Your task to perform on an android device: change notification settings in the gmail app Image 0: 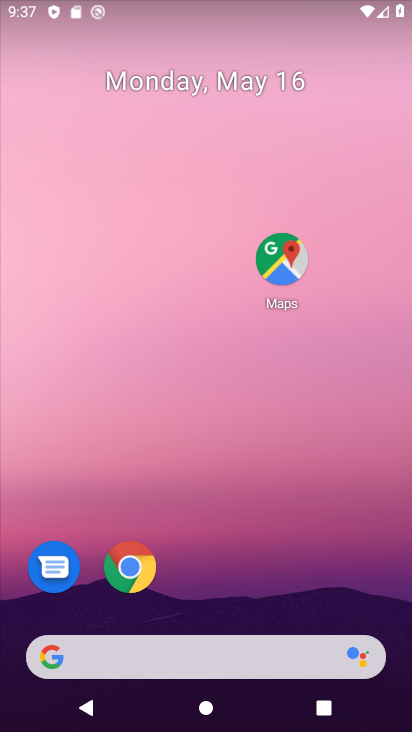
Step 0: drag from (333, 519) to (289, 58)
Your task to perform on an android device: change notification settings in the gmail app Image 1: 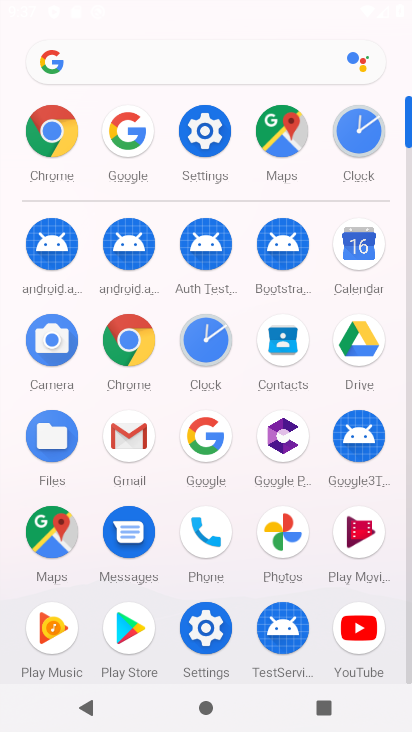
Step 1: click (133, 438)
Your task to perform on an android device: change notification settings in the gmail app Image 2: 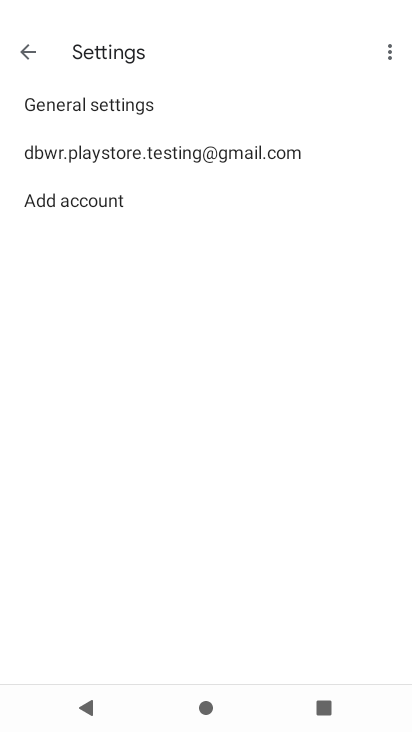
Step 2: click (143, 158)
Your task to perform on an android device: change notification settings in the gmail app Image 3: 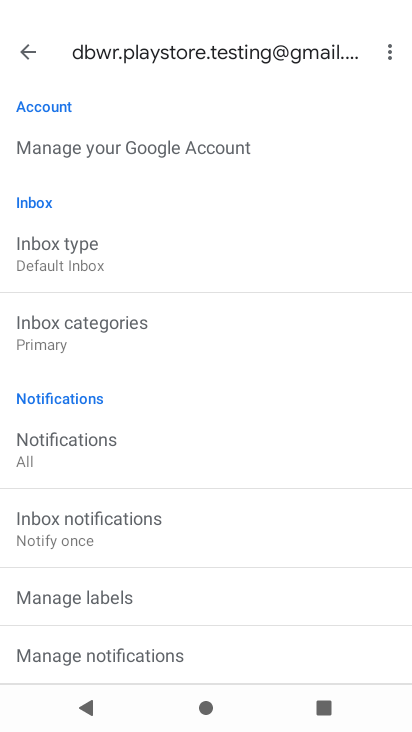
Step 3: click (85, 449)
Your task to perform on an android device: change notification settings in the gmail app Image 4: 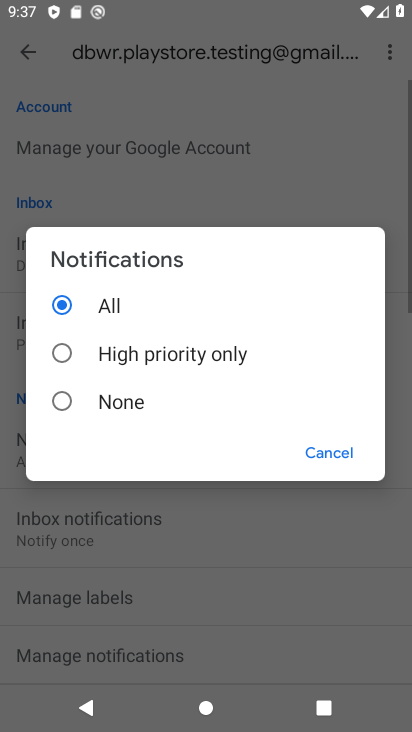
Step 4: click (76, 403)
Your task to perform on an android device: change notification settings in the gmail app Image 5: 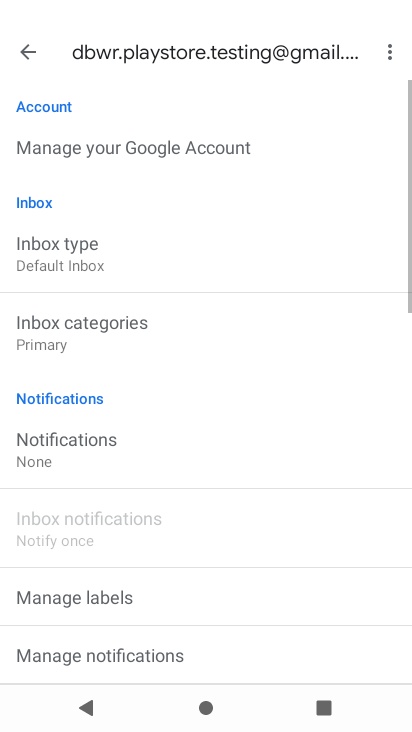
Step 5: task complete